Your task to perform on an android device: Go to notification settings Image 0: 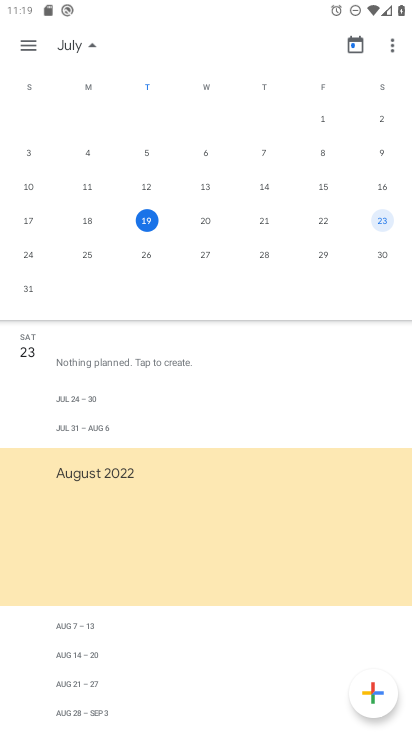
Step 0: press home button
Your task to perform on an android device: Go to notification settings Image 1: 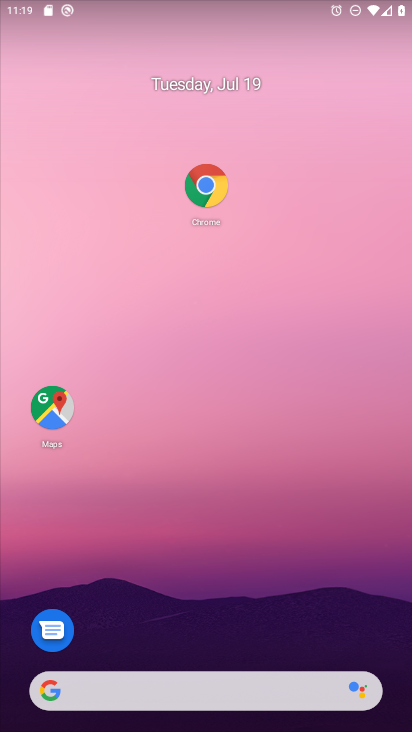
Step 1: drag from (241, 678) to (313, 301)
Your task to perform on an android device: Go to notification settings Image 2: 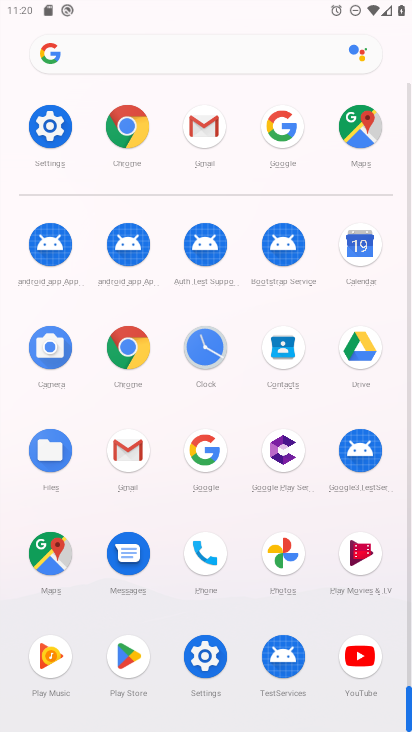
Step 2: click (38, 139)
Your task to perform on an android device: Go to notification settings Image 3: 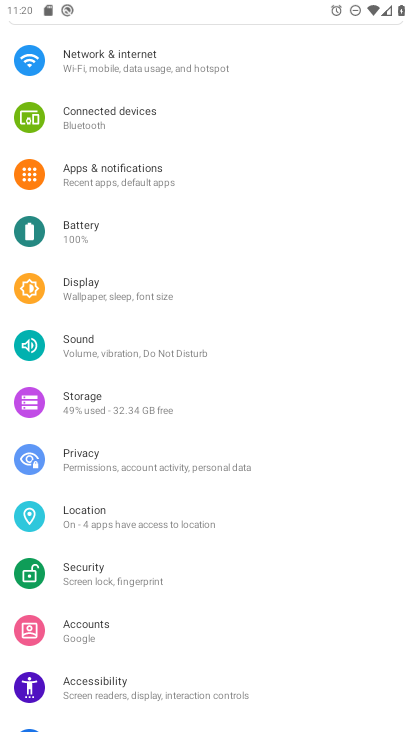
Step 3: click (168, 184)
Your task to perform on an android device: Go to notification settings Image 4: 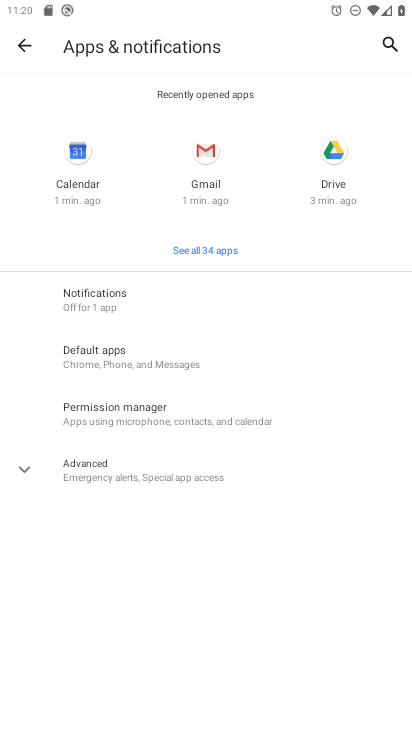
Step 4: click (136, 308)
Your task to perform on an android device: Go to notification settings Image 5: 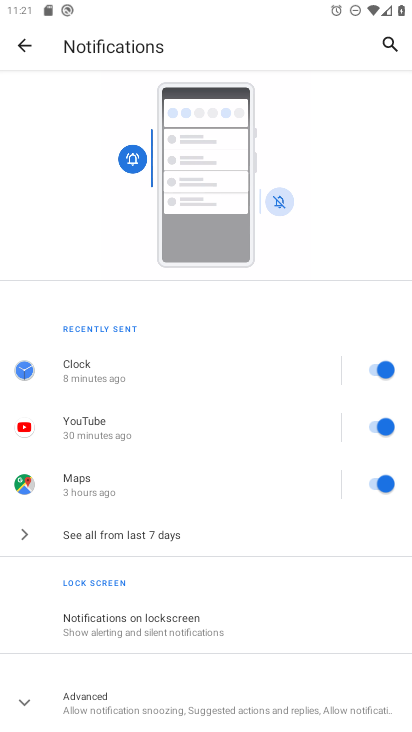
Step 5: task complete